Your task to perform on an android device: Open Chrome and go to the settings page Image 0: 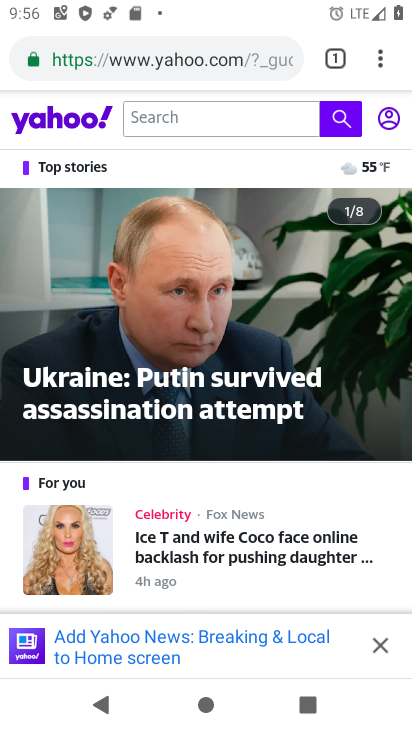
Step 0: press home button
Your task to perform on an android device: Open Chrome and go to the settings page Image 1: 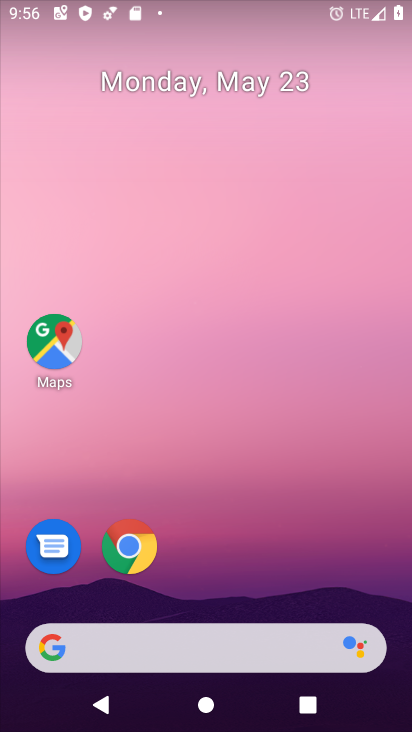
Step 1: click (124, 545)
Your task to perform on an android device: Open Chrome and go to the settings page Image 2: 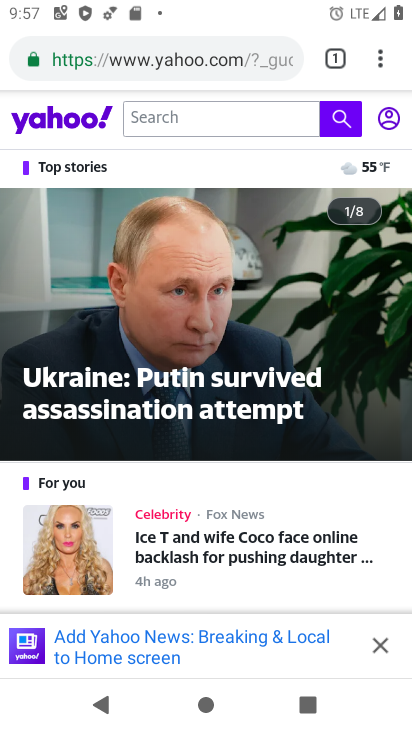
Step 2: click (377, 65)
Your task to perform on an android device: Open Chrome and go to the settings page Image 3: 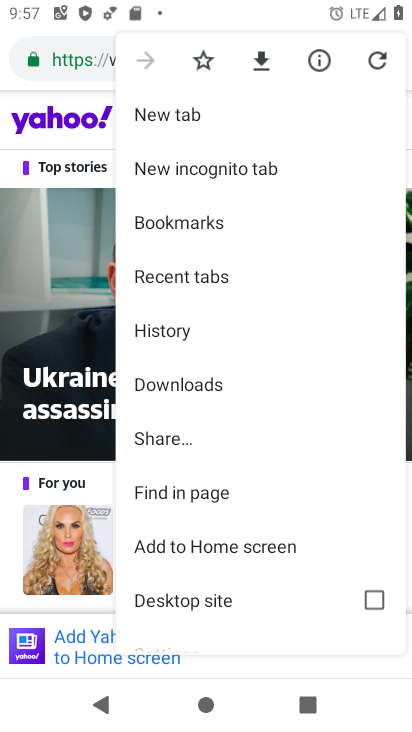
Step 3: drag from (292, 519) to (261, 123)
Your task to perform on an android device: Open Chrome and go to the settings page Image 4: 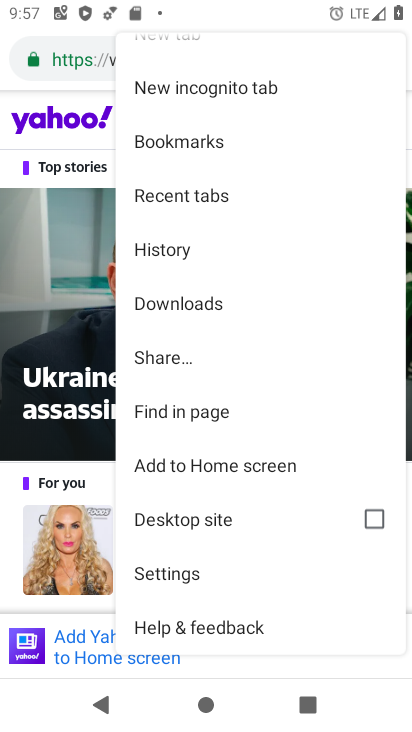
Step 4: click (162, 566)
Your task to perform on an android device: Open Chrome and go to the settings page Image 5: 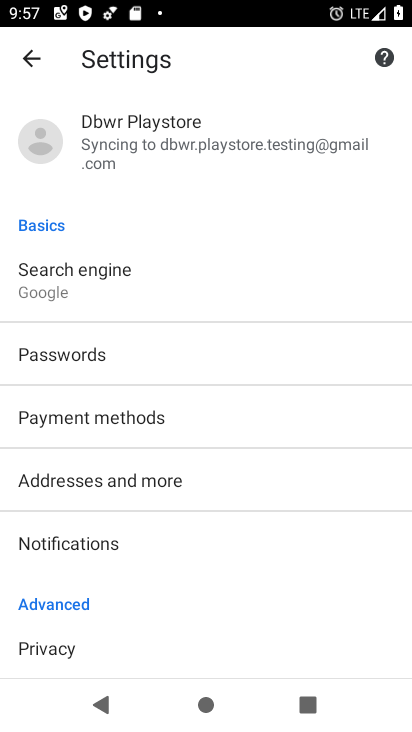
Step 5: task complete